Your task to perform on an android device: toggle notifications settings in the gmail app Image 0: 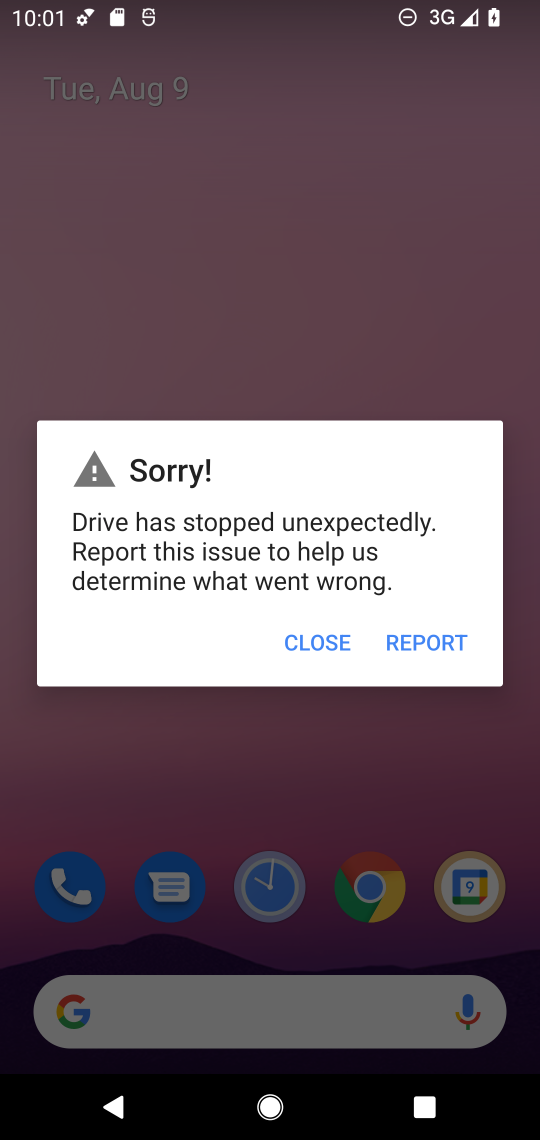
Step 0: click (325, 641)
Your task to perform on an android device: toggle notifications settings in the gmail app Image 1: 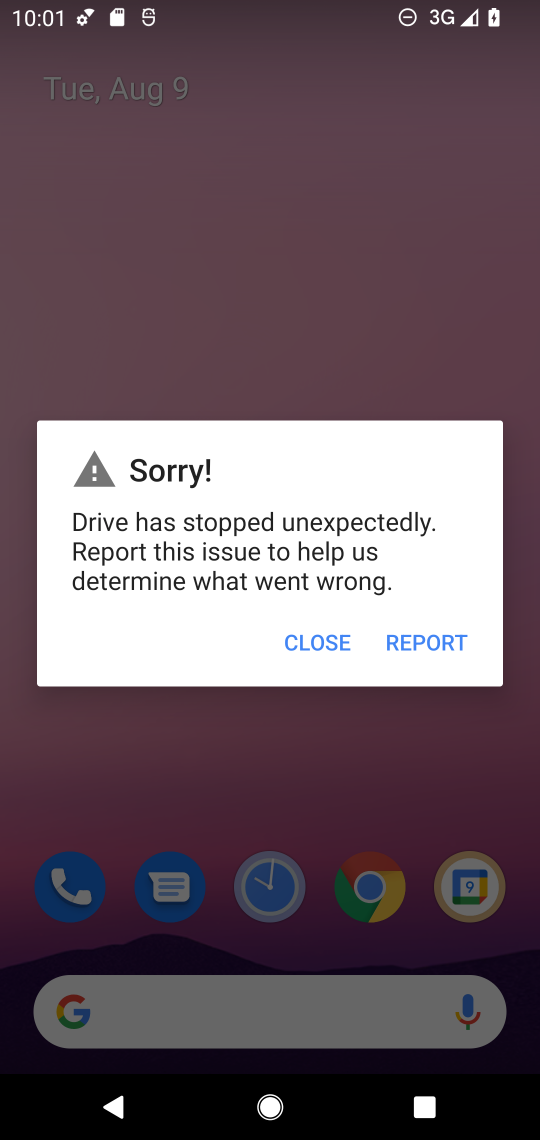
Step 1: click (319, 626)
Your task to perform on an android device: toggle notifications settings in the gmail app Image 2: 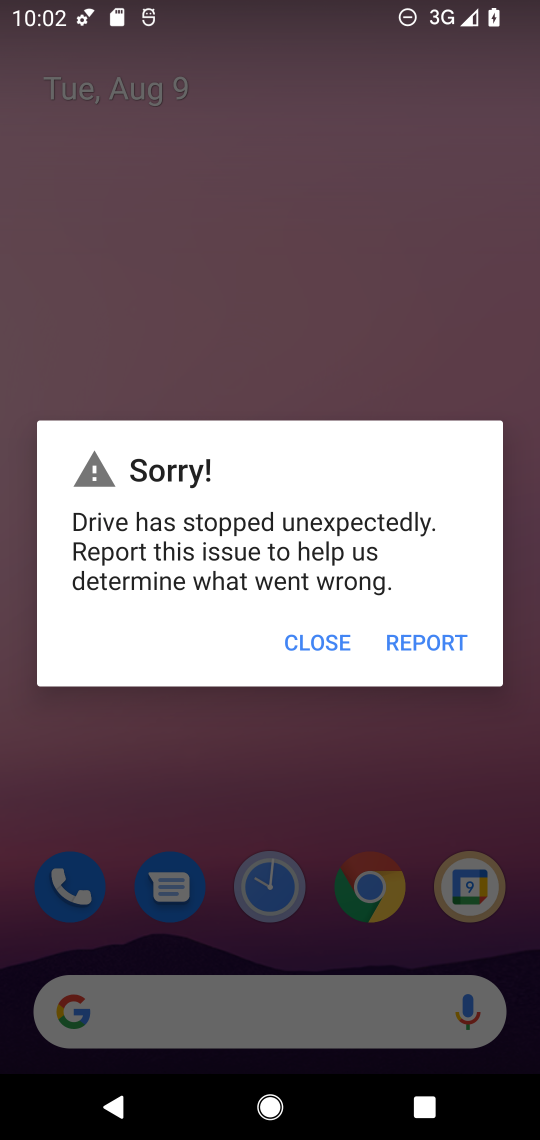
Step 2: click (315, 636)
Your task to perform on an android device: toggle notifications settings in the gmail app Image 3: 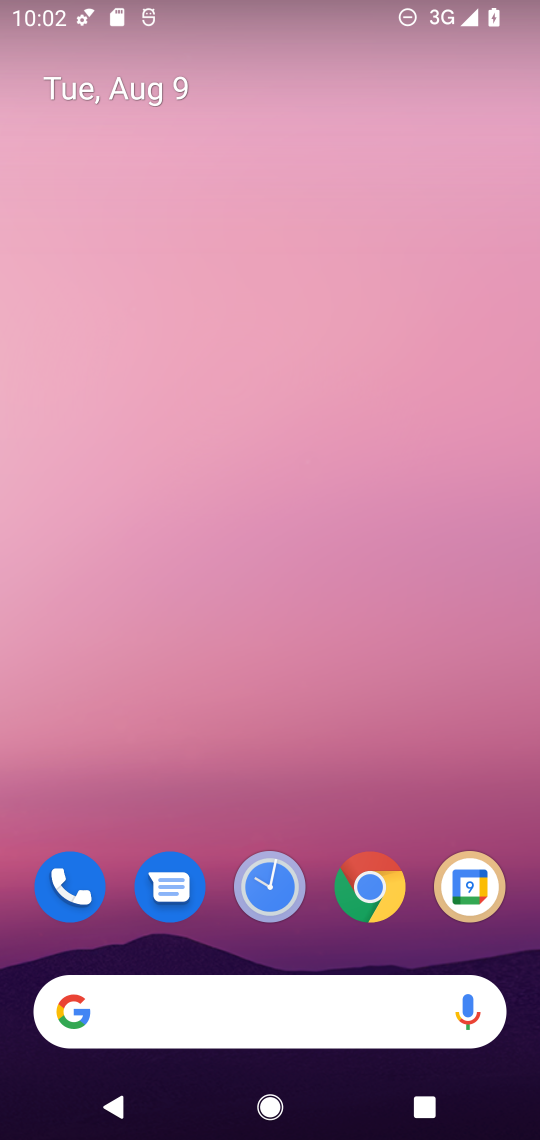
Step 3: drag from (302, 804) to (327, 254)
Your task to perform on an android device: toggle notifications settings in the gmail app Image 4: 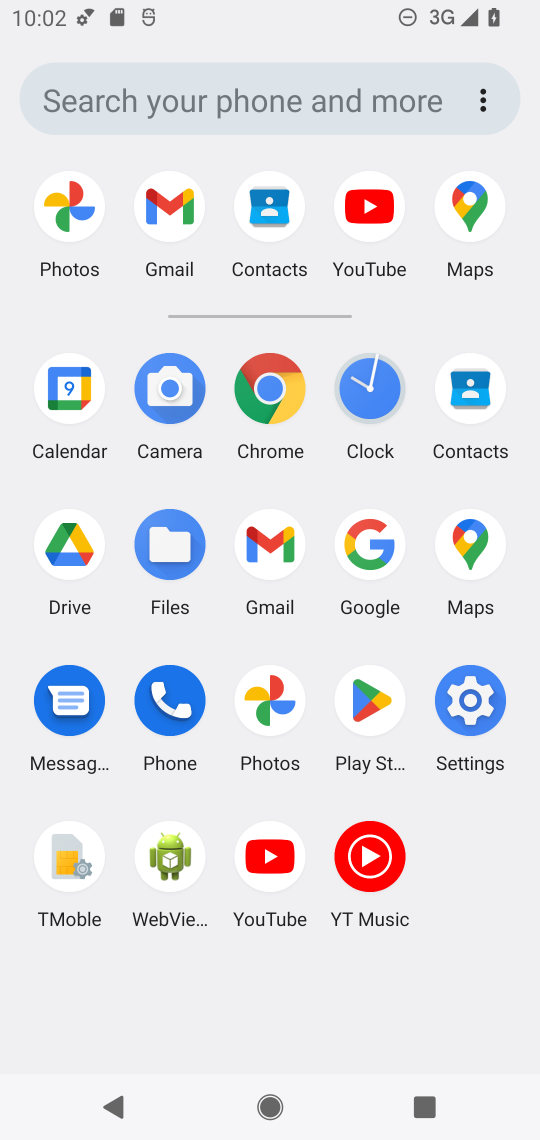
Step 4: click (166, 226)
Your task to perform on an android device: toggle notifications settings in the gmail app Image 5: 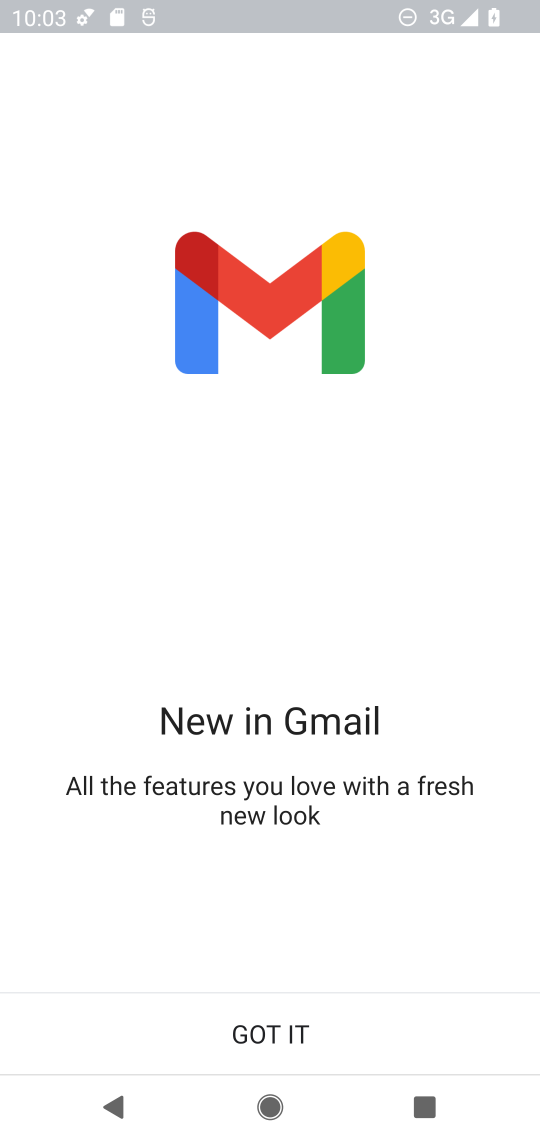
Step 5: click (403, 1032)
Your task to perform on an android device: toggle notifications settings in the gmail app Image 6: 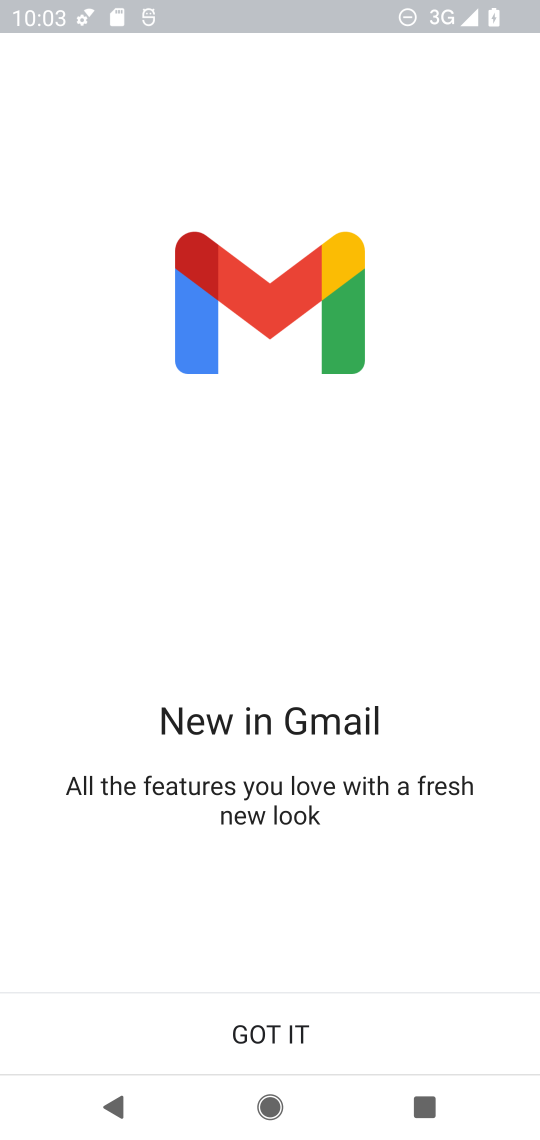
Step 6: click (333, 1022)
Your task to perform on an android device: toggle notifications settings in the gmail app Image 7: 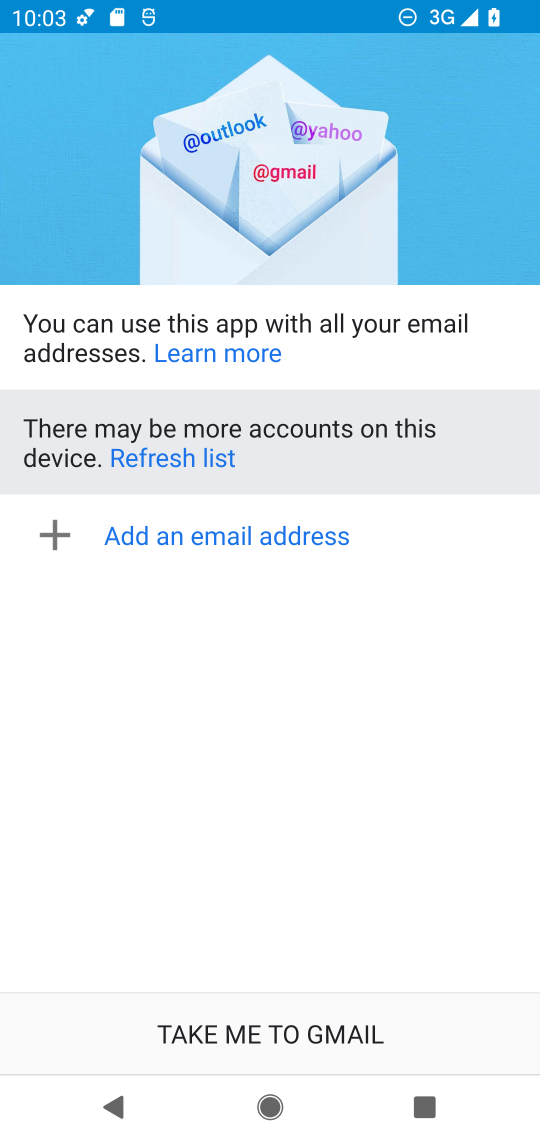
Step 7: click (378, 1023)
Your task to perform on an android device: toggle notifications settings in the gmail app Image 8: 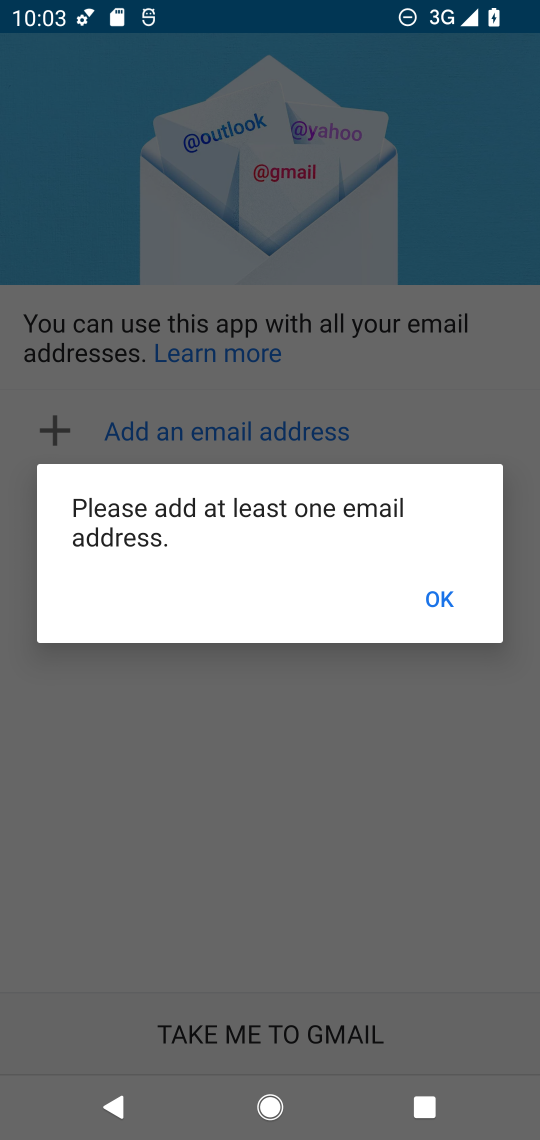
Step 8: task complete